Your task to perform on an android device: create a new album in the google photos Image 0: 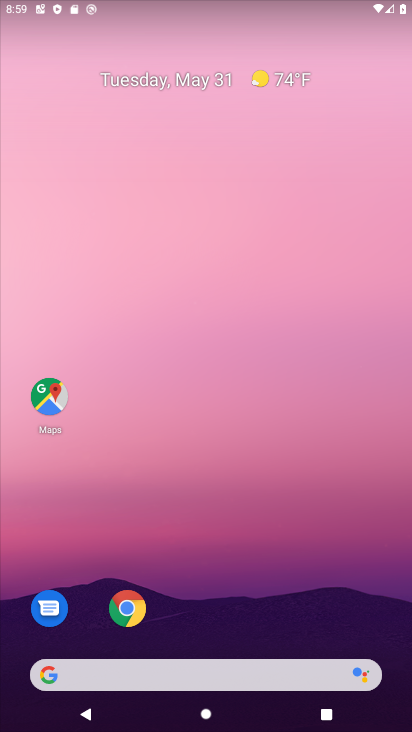
Step 0: drag from (189, 639) to (142, 172)
Your task to perform on an android device: create a new album in the google photos Image 1: 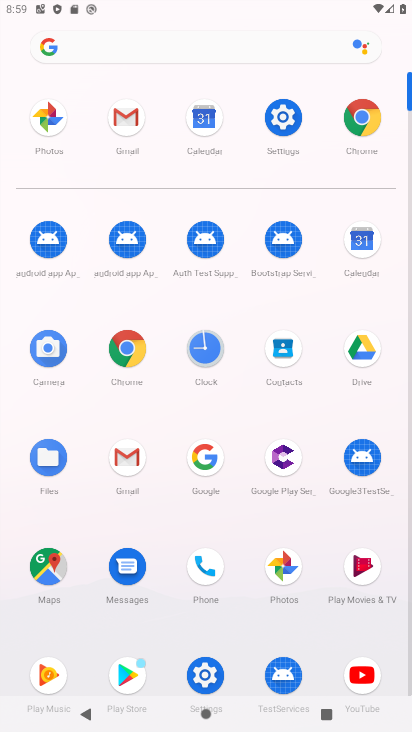
Step 1: click (289, 550)
Your task to perform on an android device: create a new album in the google photos Image 2: 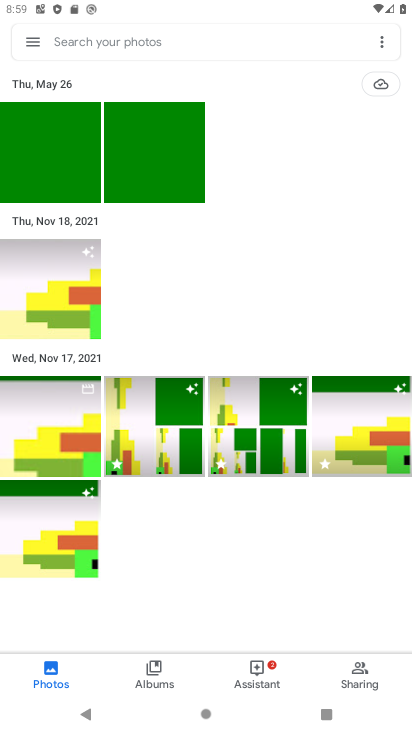
Step 2: click (59, 187)
Your task to perform on an android device: create a new album in the google photos Image 3: 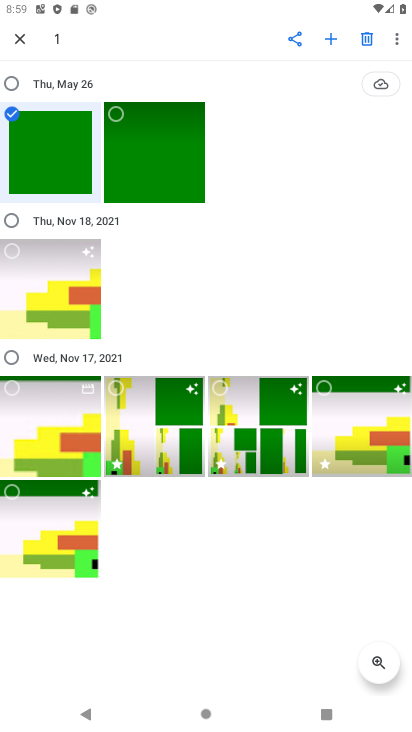
Step 3: click (111, 158)
Your task to perform on an android device: create a new album in the google photos Image 4: 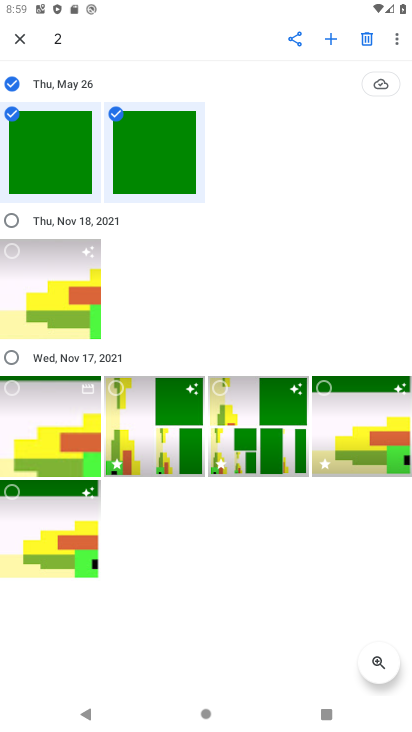
Step 4: click (328, 29)
Your task to perform on an android device: create a new album in the google photos Image 5: 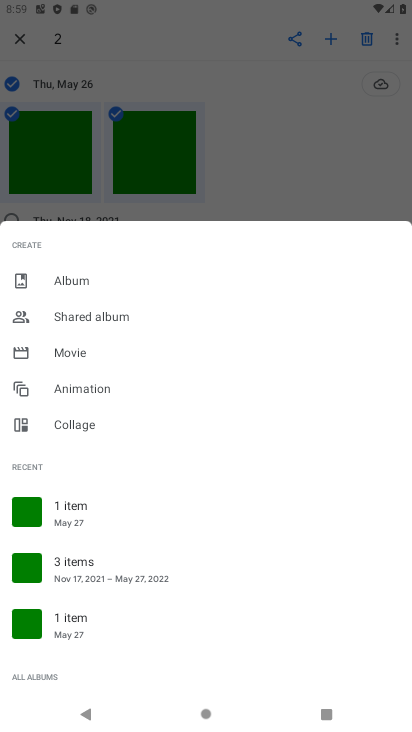
Step 5: click (84, 285)
Your task to perform on an android device: create a new album in the google photos Image 6: 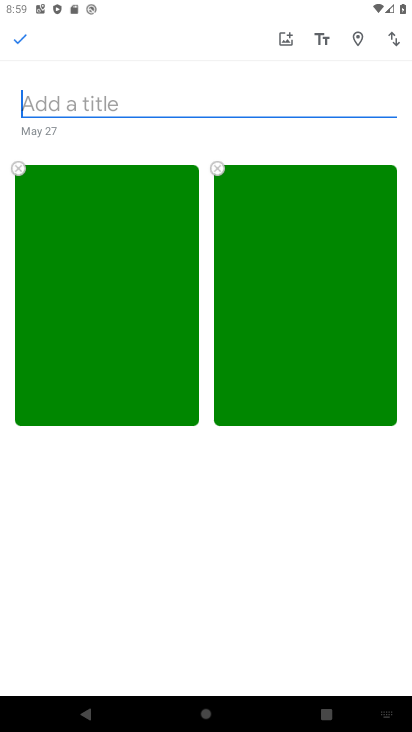
Step 6: type "bnj"
Your task to perform on an android device: create a new album in the google photos Image 7: 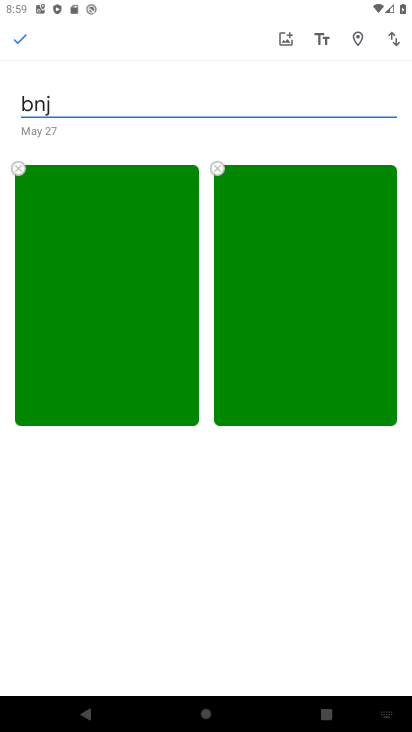
Step 7: click (12, 35)
Your task to perform on an android device: create a new album in the google photos Image 8: 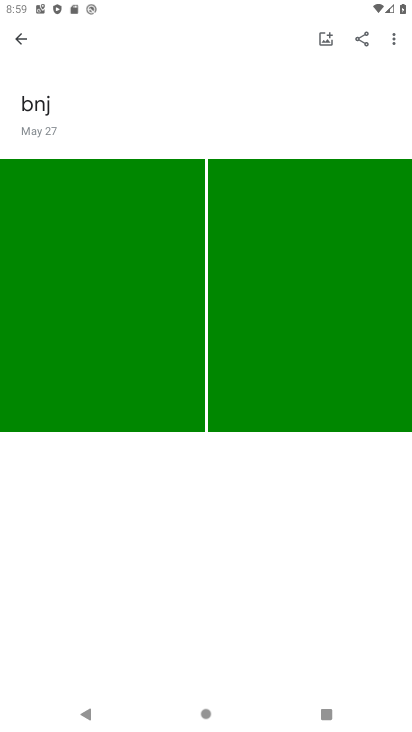
Step 8: task complete